Your task to perform on an android device: Open settings on Google Maps Image 0: 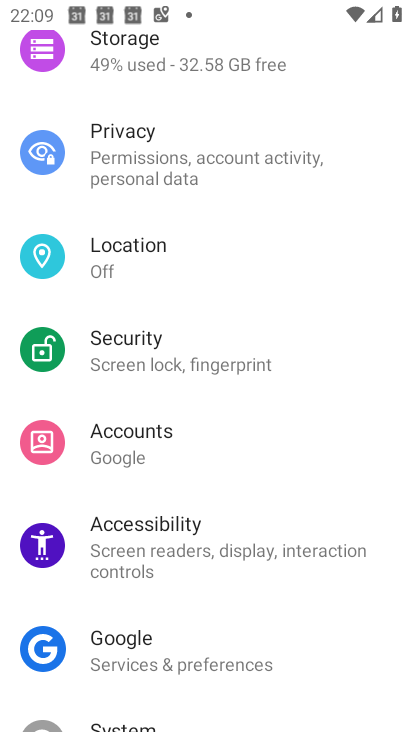
Step 0: press home button
Your task to perform on an android device: Open settings on Google Maps Image 1: 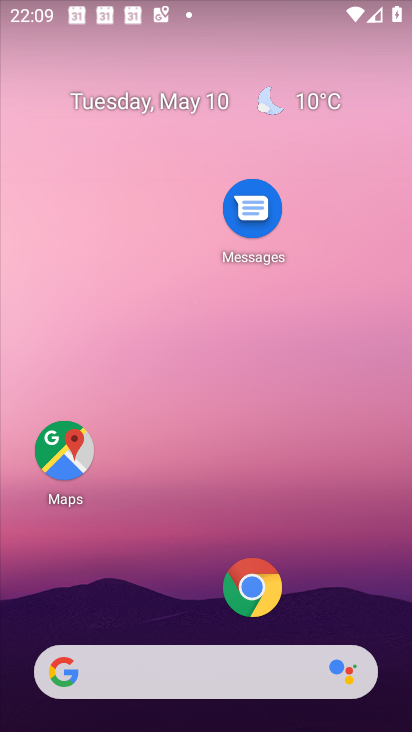
Step 1: click (73, 441)
Your task to perform on an android device: Open settings on Google Maps Image 2: 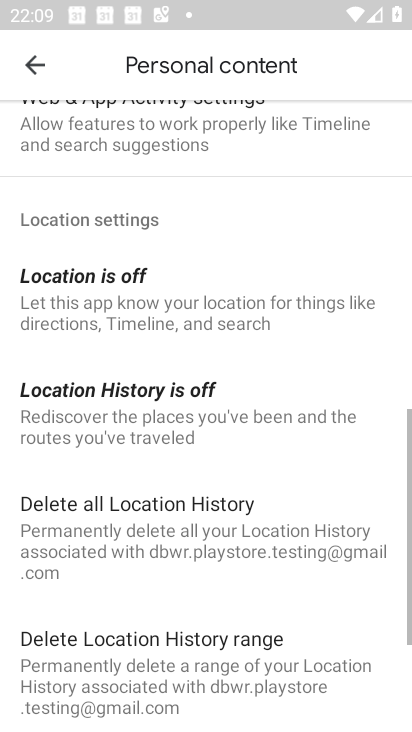
Step 2: click (46, 77)
Your task to perform on an android device: Open settings on Google Maps Image 3: 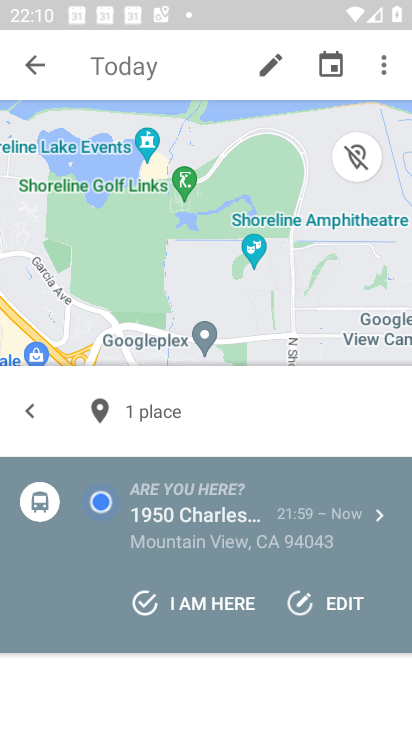
Step 3: click (43, 76)
Your task to perform on an android device: Open settings on Google Maps Image 4: 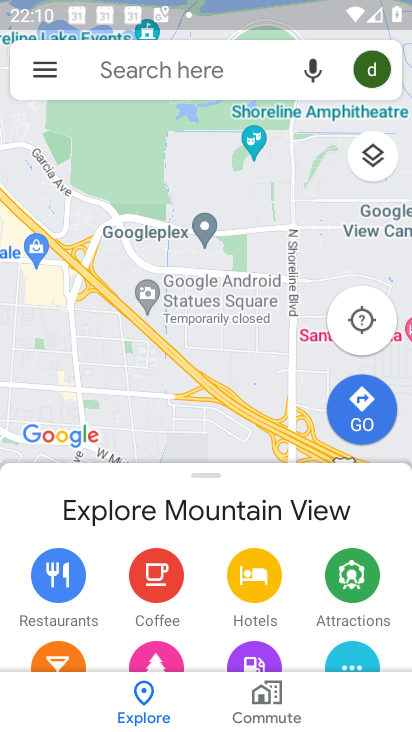
Step 4: click (44, 76)
Your task to perform on an android device: Open settings on Google Maps Image 5: 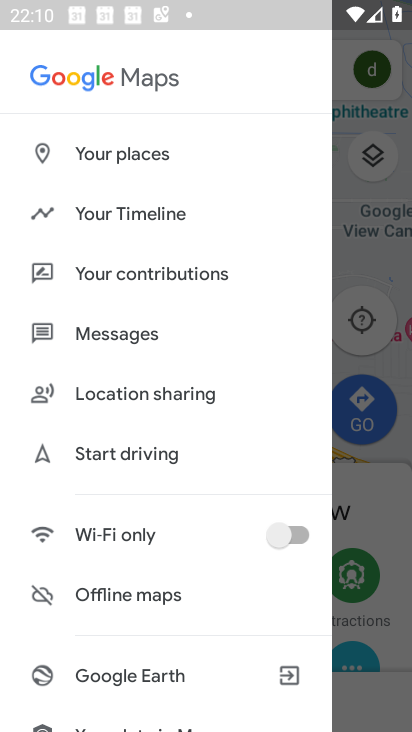
Step 5: drag from (113, 653) to (185, 262)
Your task to perform on an android device: Open settings on Google Maps Image 6: 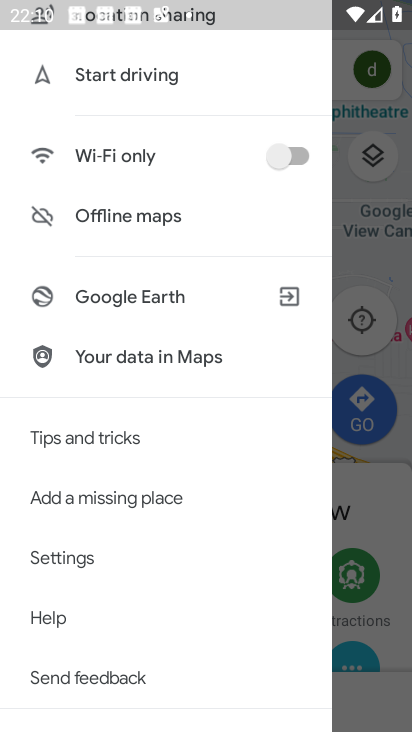
Step 6: click (86, 556)
Your task to perform on an android device: Open settings on Google Maps Image 7: 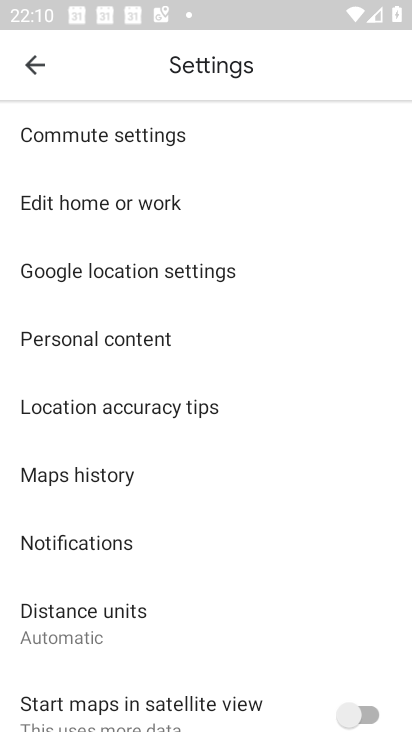
Step 7: task complete